Your task to perform on an android device: find snoozed emails in the gmail app Image 0: 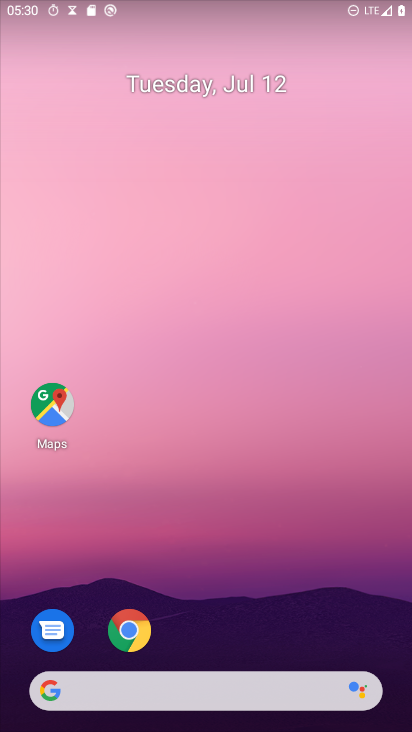
Step 0: drag from (219, 668) to (251, 150)
Your task to perform on an android device: find snoozed emails in the gmail app Image 1: 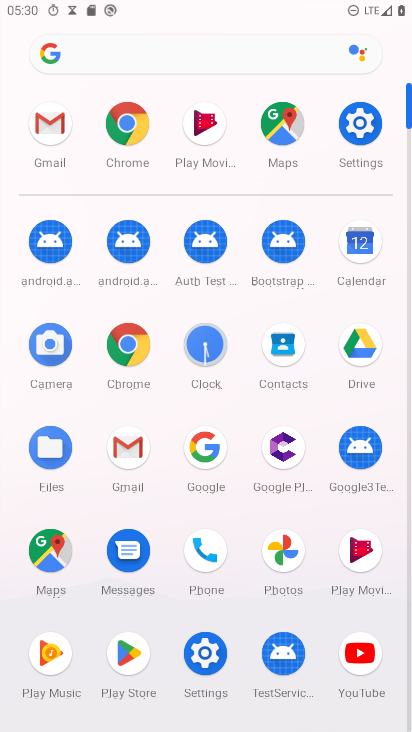
Step 1: click (138, 448)
Your task to perform on an android device: find snoozed emails in the gmail app Image 2: 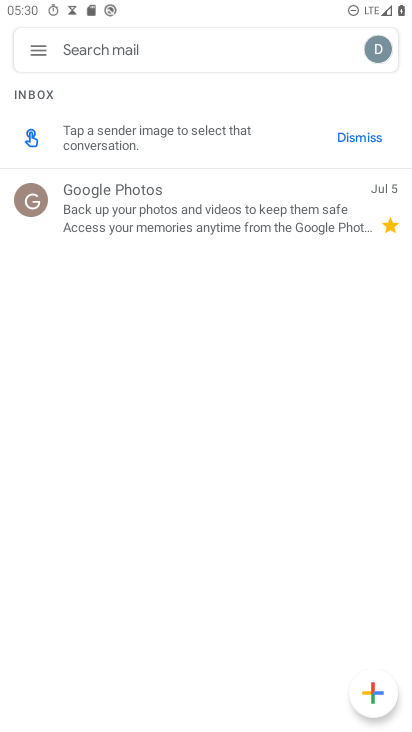
Step 2: click (43, 37)
Your task to perform on an android device: find snoozed emails in the gmail app Image 3: 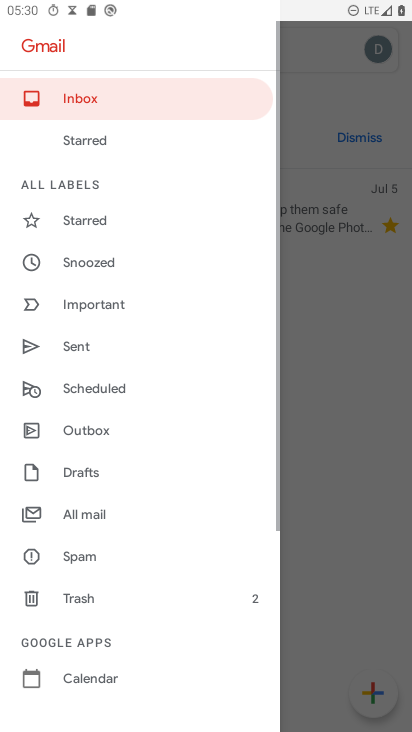
Step 3: click (85, 262)
Your task to perform on an android device: find snoozed emails in the gmail app Image 4: 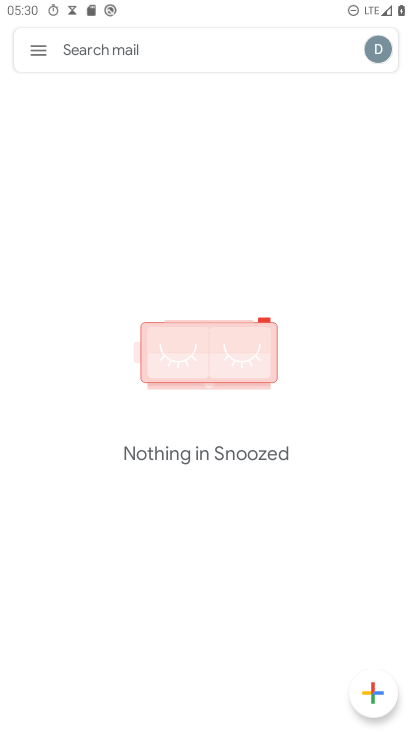
Step 4: task complete